Your task to perform on an android device: check the backup settings in the google photos Image 0: 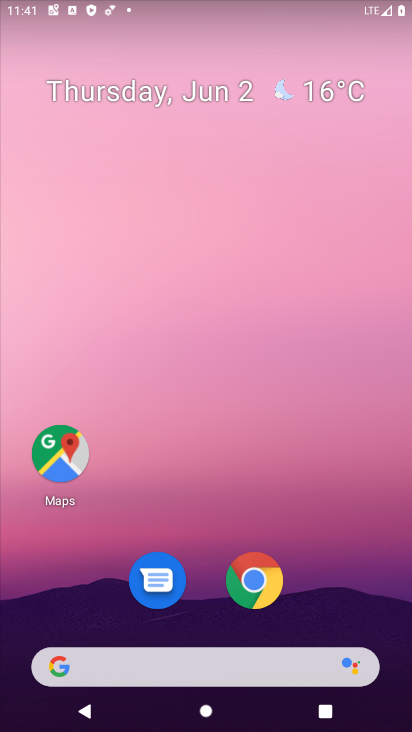
Step 0: drag from (203, 695) to (259, 47)
Your task to perform on an android device: check the backup settings in the google photos Image 1: 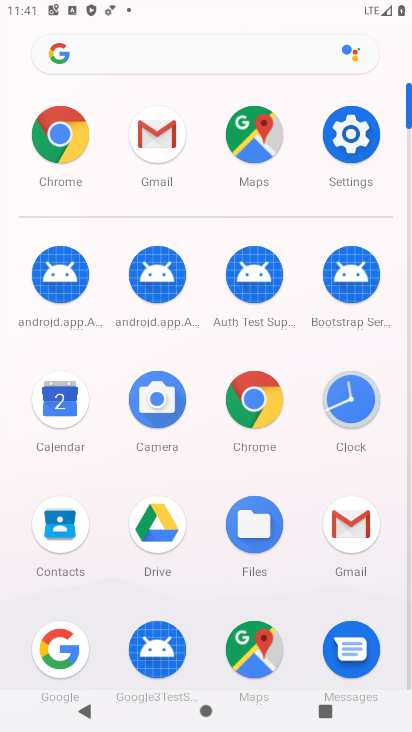
Step 1: drag from (280, 511) to (336, 213)
Your task to perform on an android device: check the backup settings in the google photos Image 2: 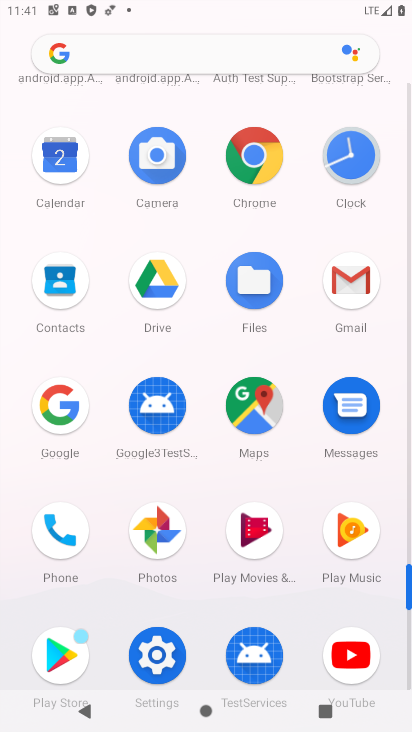
Step 2: click (164, 545)
Your task to perform on an android device: check the backup settings in the google photos Image 3: 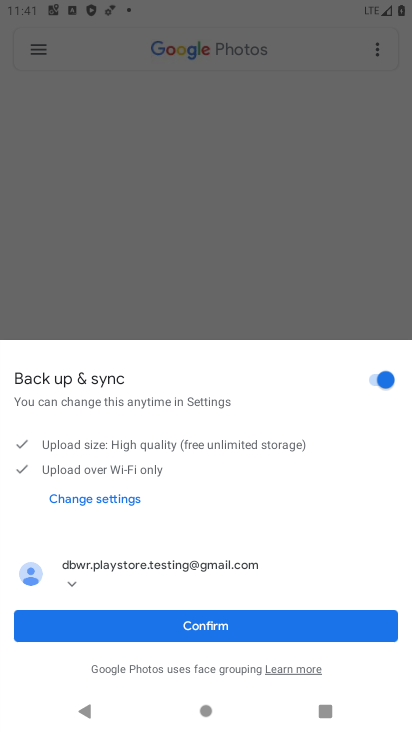
Step 3: click (164, 636)
Your task to perform on an android device: check the backup settings in the google photos Image 4: 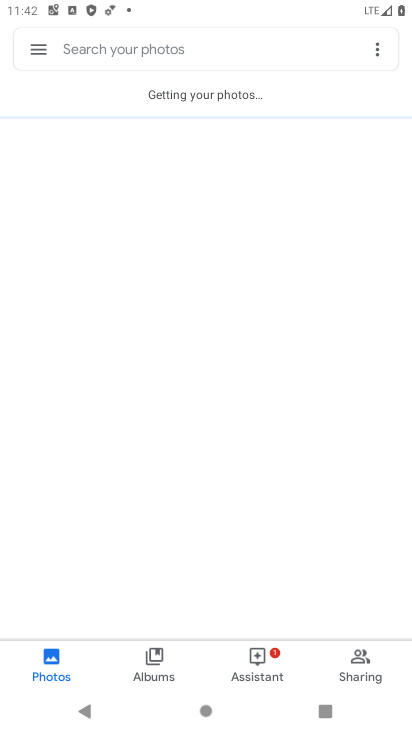
Step 4: click (32, 43)
Your task to perform on an android device: check the backup settings in the google photos Image 5: 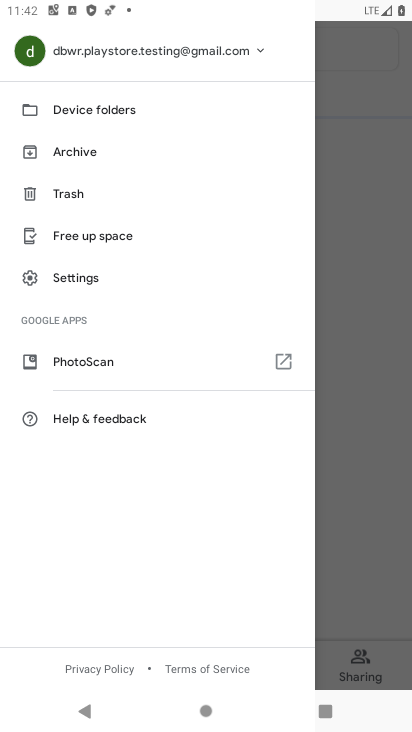
Step 5: click (94, 276)
Your task to perform on an android device: check the backup settings in the google photos Image 6: 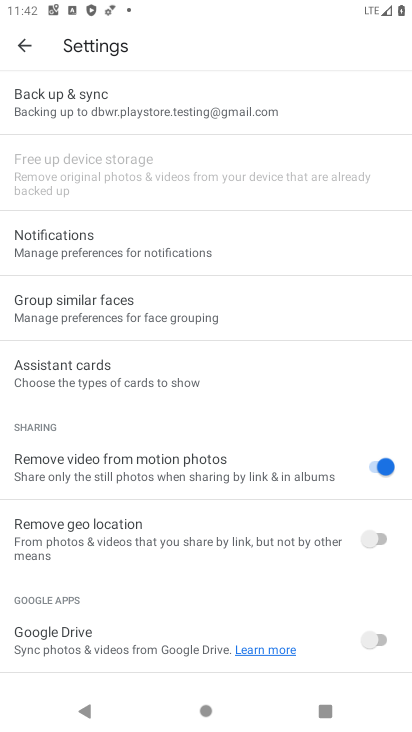
Step 6: click (126, 108)
Your task to perform on an android device: check the backup settings in the google photos Image 7: 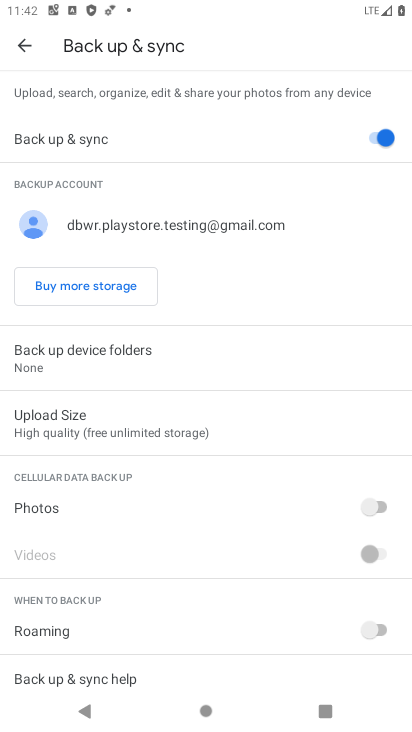
Step 7: task complete